Your task to perform on an android device: delete browsing data in the chrome app Image 0: 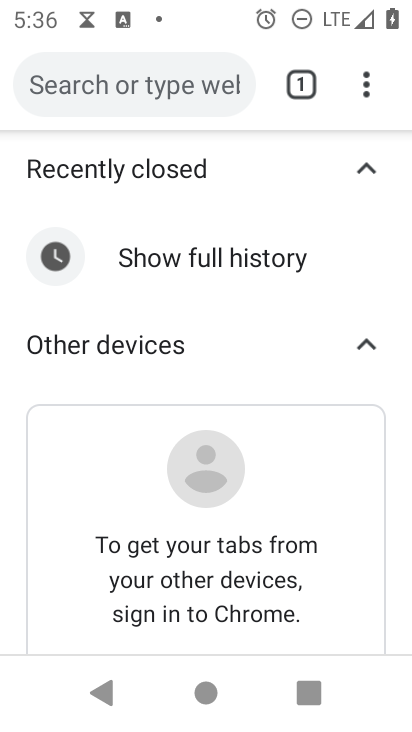
Step 0: press home button
Your task to perform on an android device: delete browsing data in the chrome app Image 1: 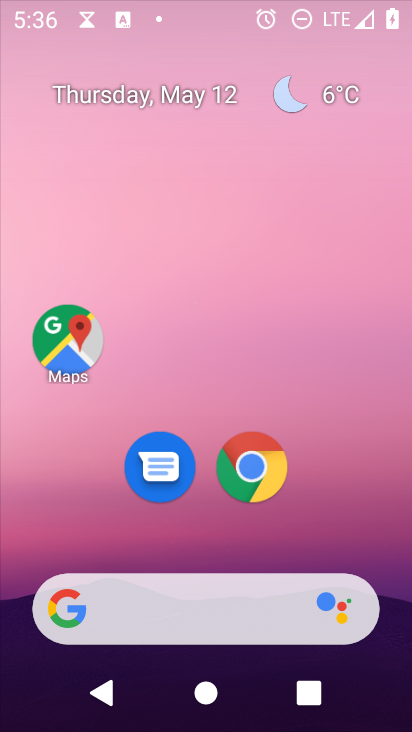
Step 1: drag from (238, 595) to (280, 3)
Your task to perform on an android device: delete browsing data in the chrome app Image 2: 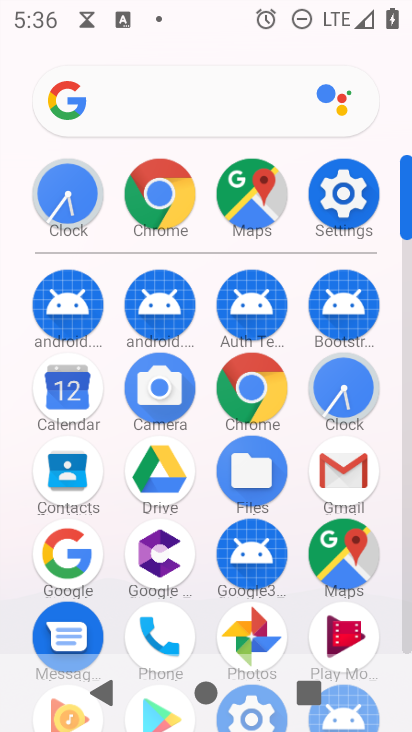
Step 2: click (266, 394)
Your task to perform on an android device: delete browsing data in the chrome app Image 3: 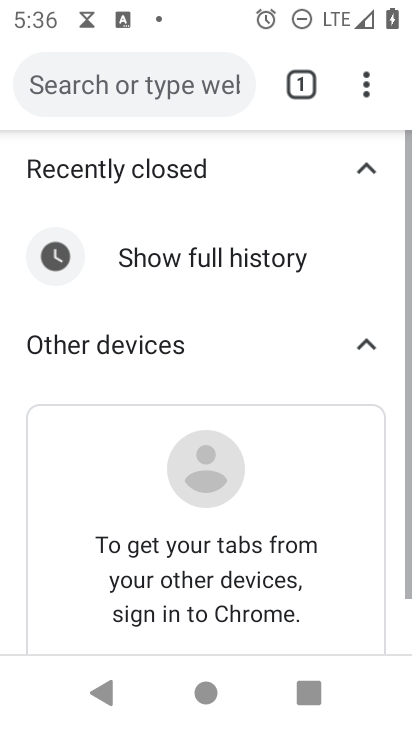
Step 3: drag from (356, 78) to (164, 526)
Your task to perform on an android device: delete browsing data in the chrome app Image 4: 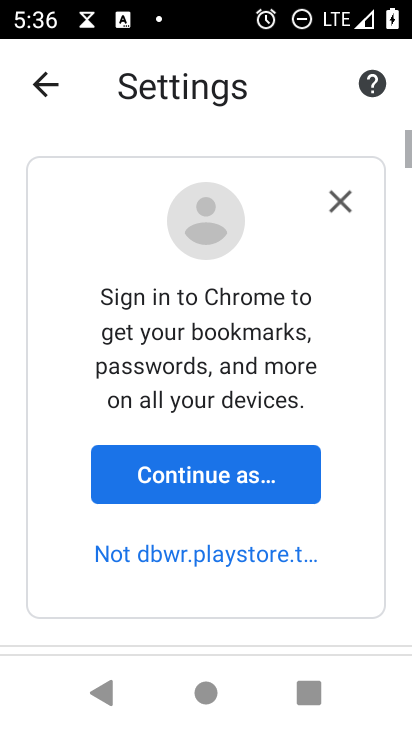
Step 4: drag from (214, 620) to (285, 98)
Your task to perform on an android device: delete browsing data in the chrome app Image 5: 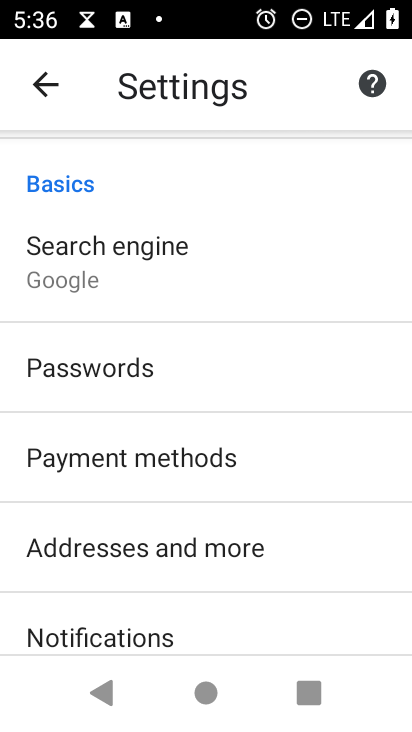
Step 5: drag from (257, 612) to (307, 151)
Your task to perform on an android device: delete browsing data in the chrome app Image 6: 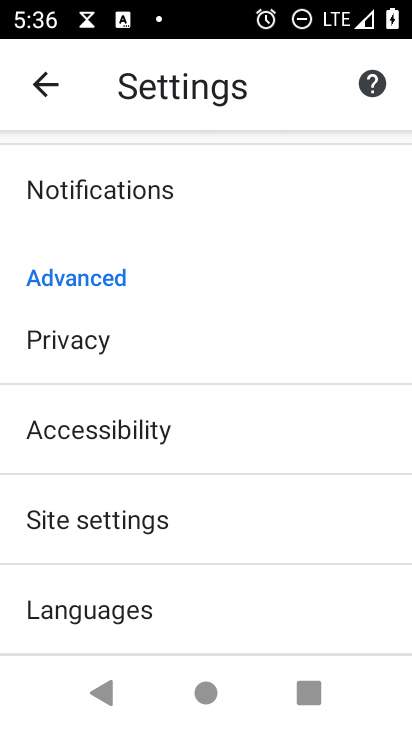
Step 6: drag from (170, 510) to (220, 302)
Your task to perform on an android device: delete browsing data in the chrome app Image 7: 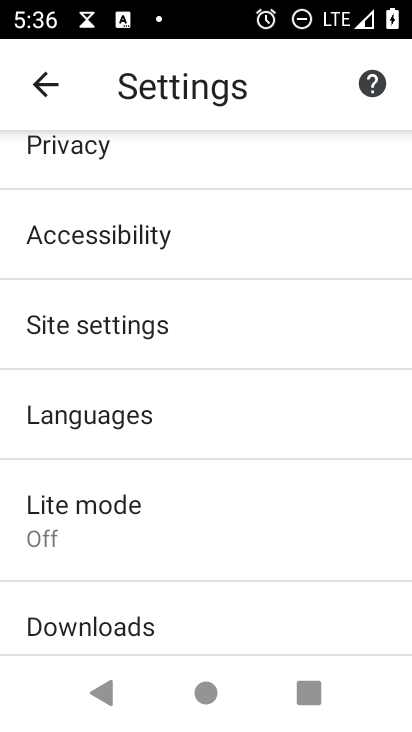
Step 7: click (134, 163)
Your task to perform on an android device: delete browsing data in the chrome app Image 8: 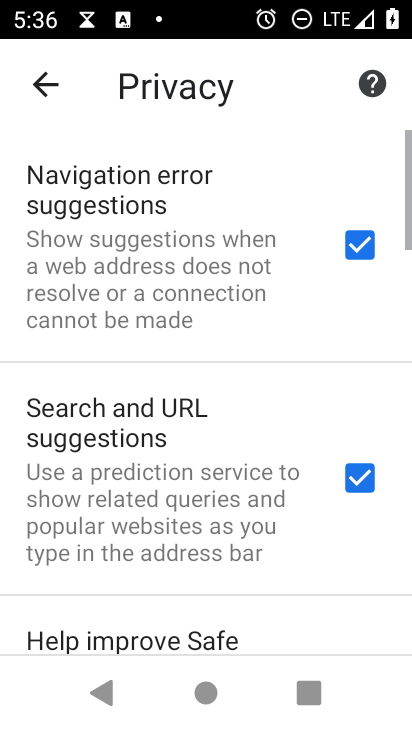
Step 8: drag from (246, 587) to (298, 79)
Your task to perform on an android device: delete browsing data in the chrome app Image 9: 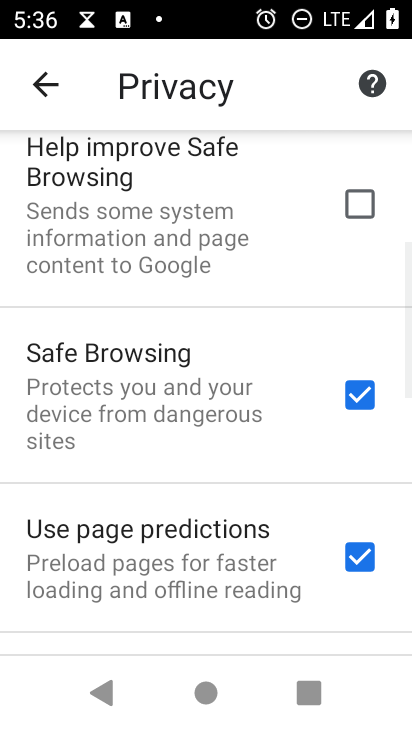
Step 9: drag from (258, 598) to (292, 124)
Your task to perform on an android device: delete browsing data in the chrome app Image 10: 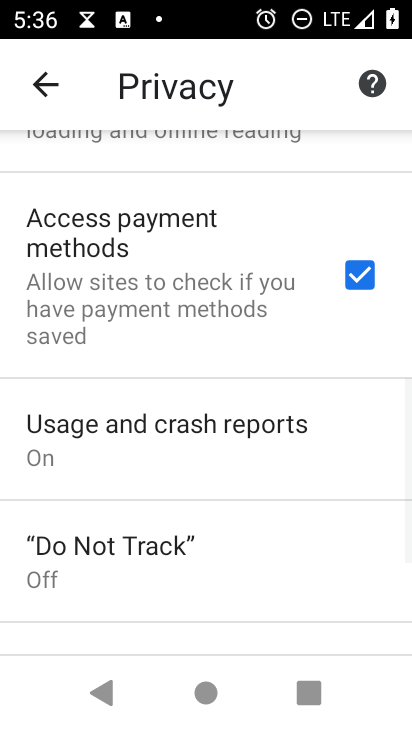
Step 10: drag from (278, 603) to (251, 122)
Your task to perform on an android device: delete browsing data in the chrome app Image 11: 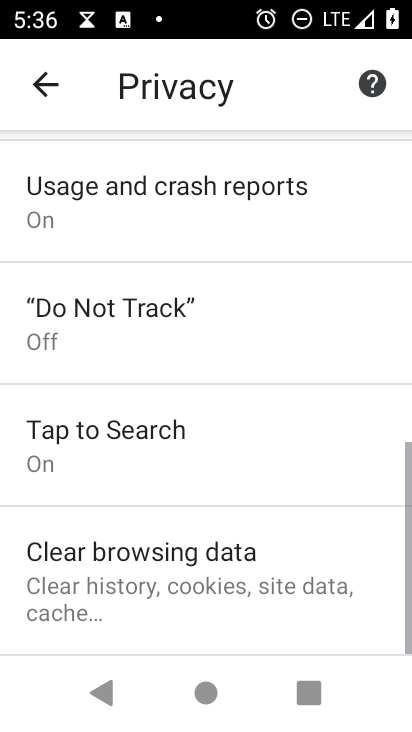
Step 11: click (208, 573)
Your task to perform on an android device: delete browsing data in the chrome app Image 12: 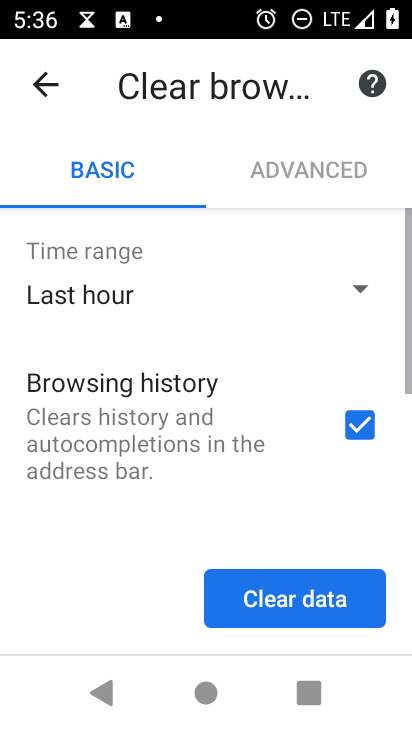
Step 12: click (274, 586)
Your task to perform on an android device: delete browsing data in the chrome app Image 13: 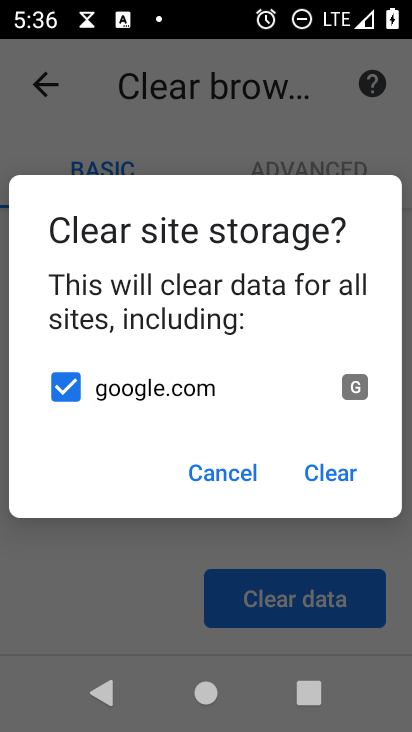
Step 13: click (332, 477)
Your task to perform on an android device: delete browsing data in the chrome app Image 14: 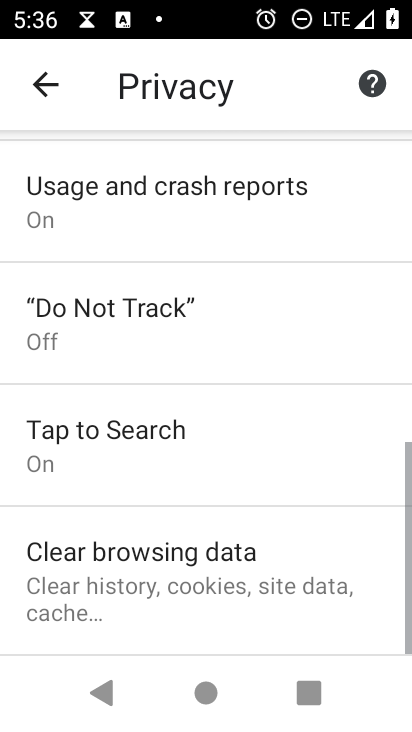
Step 14: task complete